Your task to perform on an android device: Clear all items from cart on costco.com. Add bose soundlink to the cart on costco.com, then select checkout. Image 0: 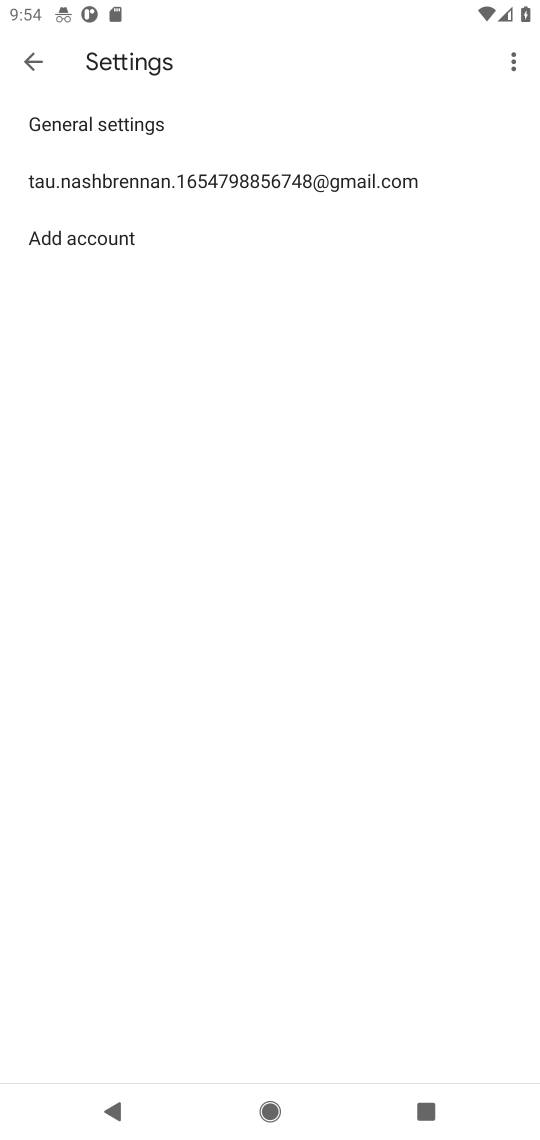
Step 0: press home button
Your task to perform on an android device: Clear all items from cart on costco.com. Add bose soundlink to the cart on costco.com, then select checkout. Image 1: 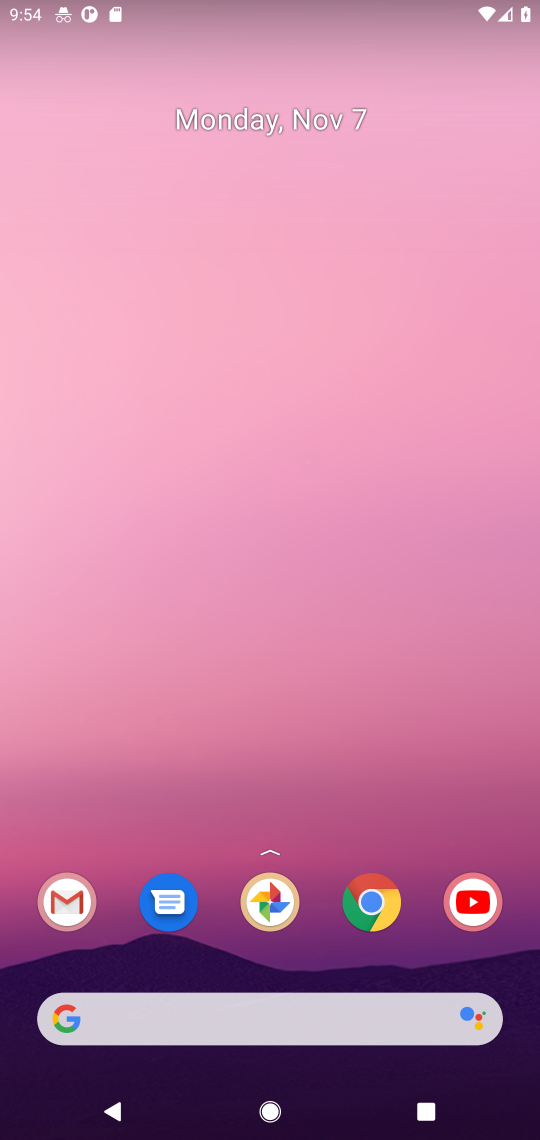
Step 1: click (383, 905)
Your task to perform on an android device: Clear all items from cart on costco.com. Add bose soundlink to the cart on costco.com, then select checkout. Image 2: 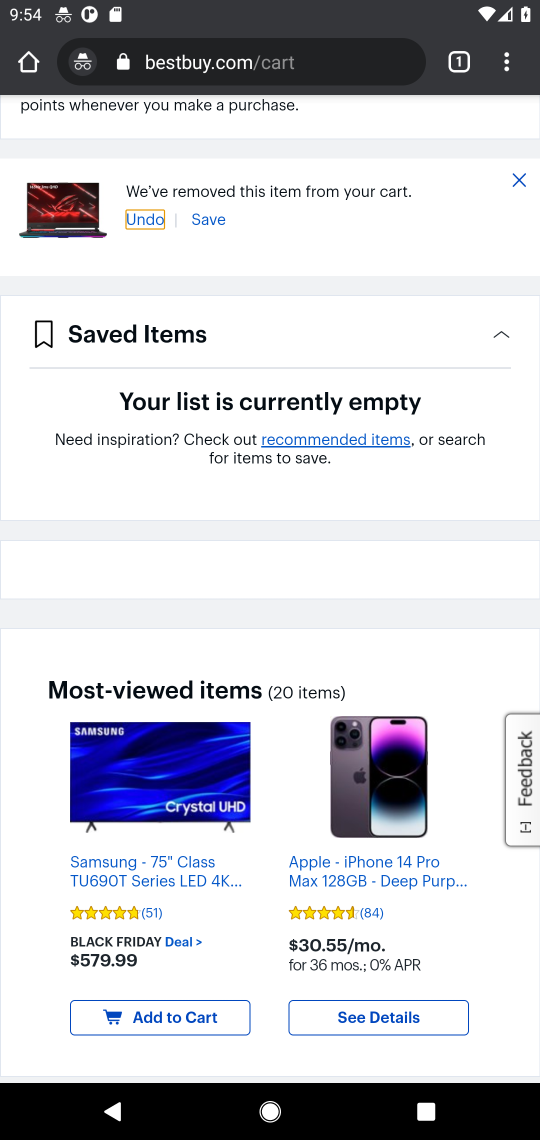
Step 2: click (240, 70)
Your task to perform on an android device: Clear all items from cart on costco.com. Add bose soundlink to the cart on costco.com, then select checkout. Image 3: 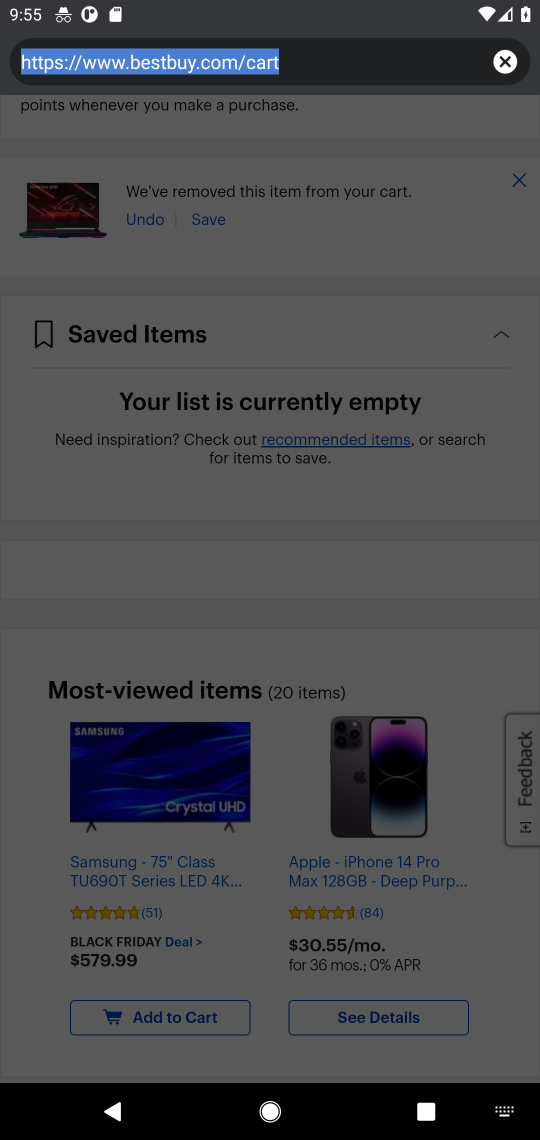
Step 3: type "costco.com"
Your task to perform on an android device: Clear all items from cart on costco.com. Add bose soundlink to the cart on costco.com, then select checkout. Image 4: 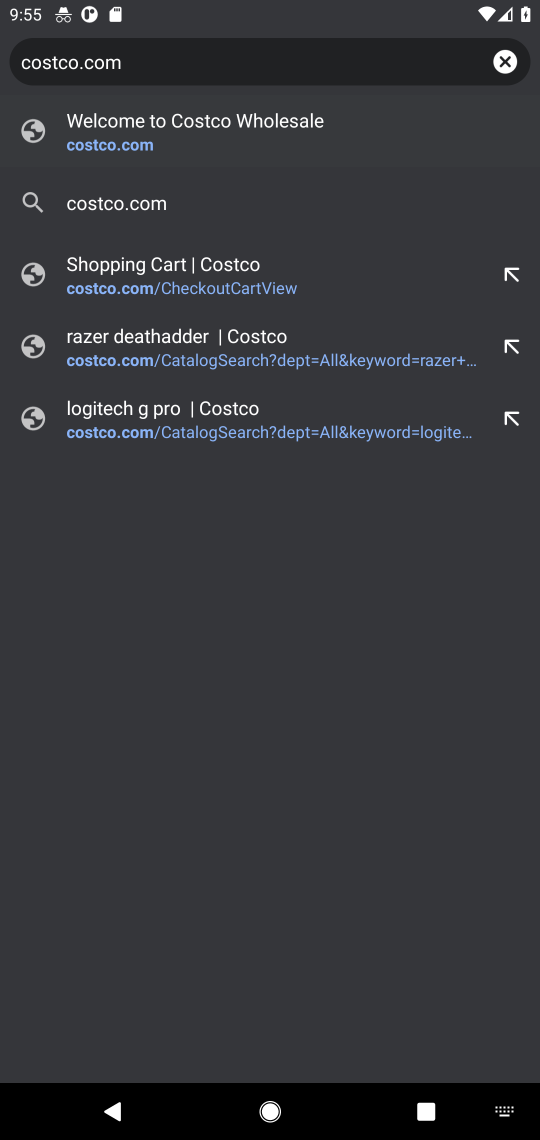
Step 4: click (138, 158)
Your task to perform on an android device: Clear all items from cart on costco.com. Add bose soundlink to the cart on costco.com, then select checkout. Image 5: 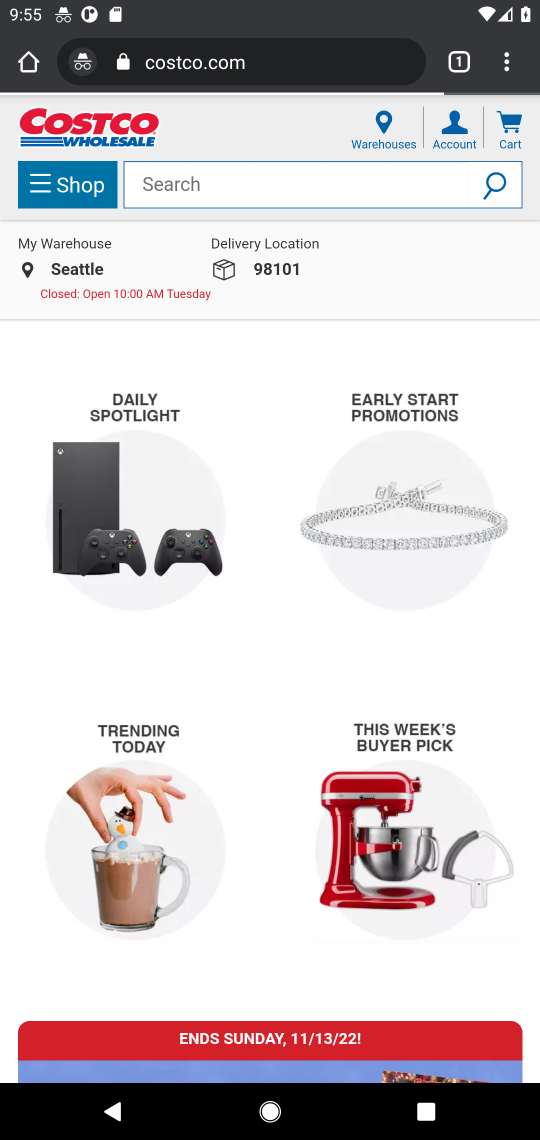
Step 5: click (520, 133)
Your task to perform on an android device: Clear all items from cart on costco.com. Add bose soundlink to the cart on costco.com, then select checkout. Image 6: 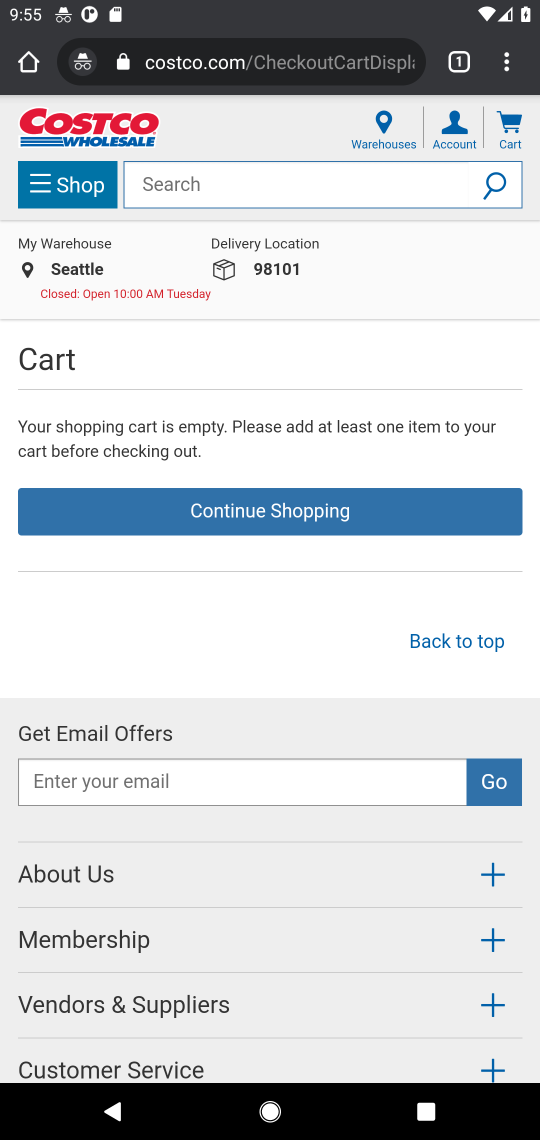
Step 6: click (224, 191)
Your task to perform on an android device: Clear all items from cart on costco.com. Add bose soundlink to the cart on costco.com, then select checkout. Image 7: 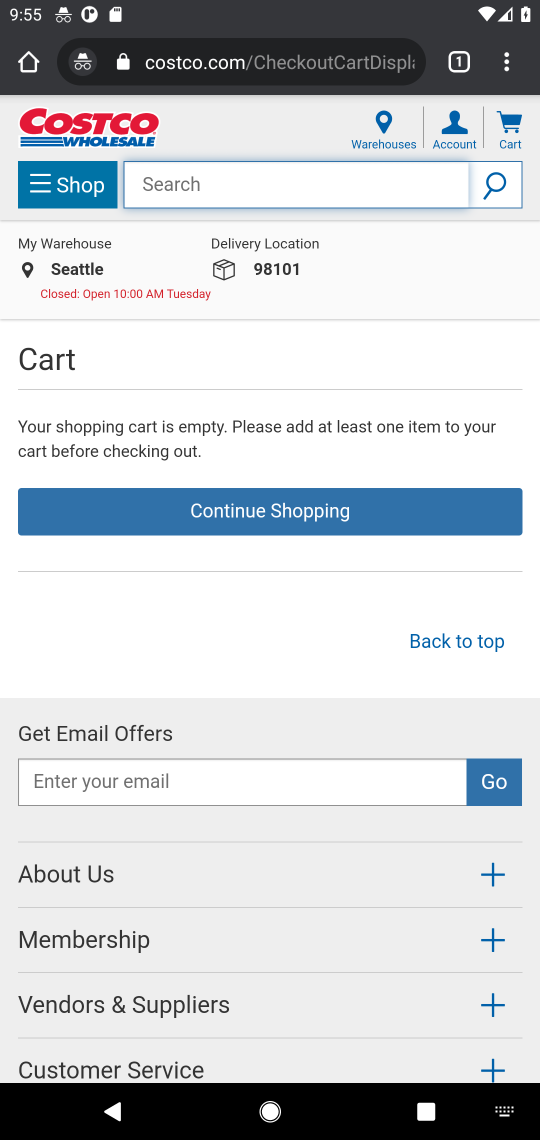
Step 7: type "bose soundlink"
Your task to perform on an android device: Clear all items from cart on costco.com. Add bose soundlink to the cart on costco.com, then select checkout. Image 8: 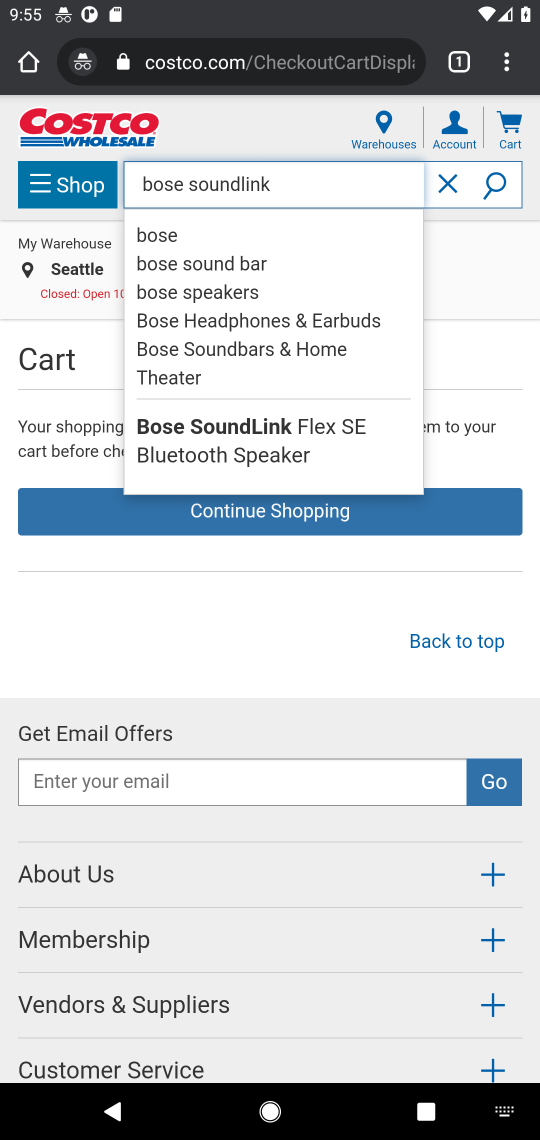
Step 8: click (491, 188)
Your task to perform on an android device: Clear all items from cart on costco.com. Add bose soundlink to the cart on costco.com, then select checkout. Image 9: 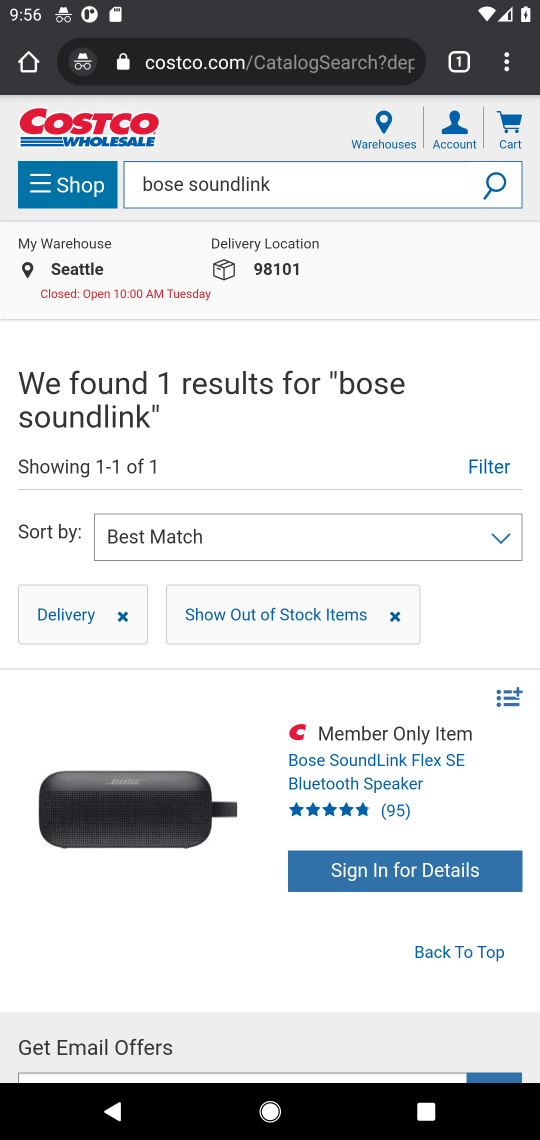
Step 9: task complete